Your task to perform on an android device: Go to location settings Image 0: 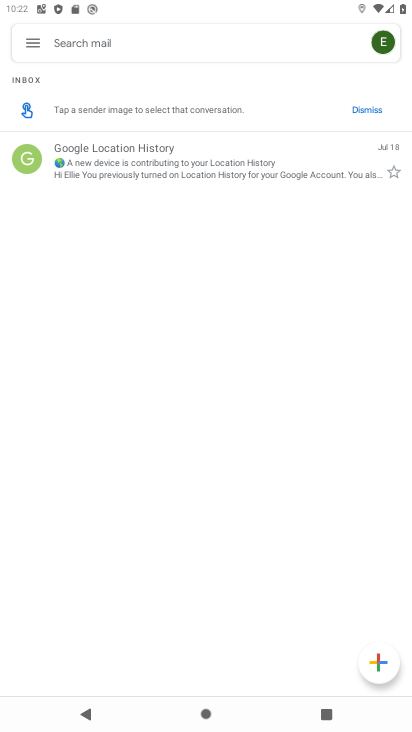
Step 0: press home button
Your task to perform on an android device: Go to location settings Image 1: 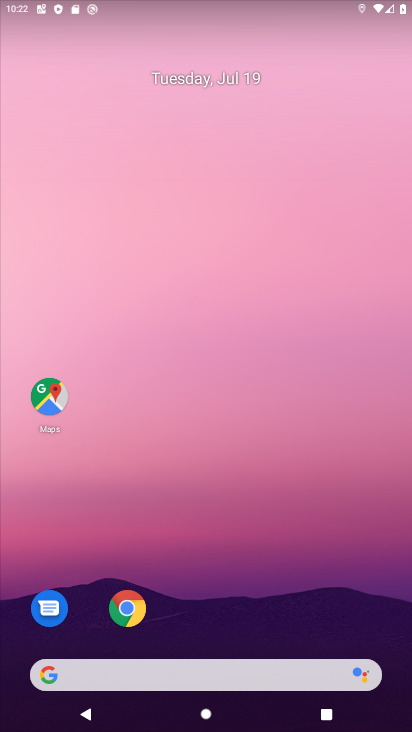
Step 1: drag from (206, 646) to (206, 23)
Your task to perform on an android device: Go to location settings Image 2: 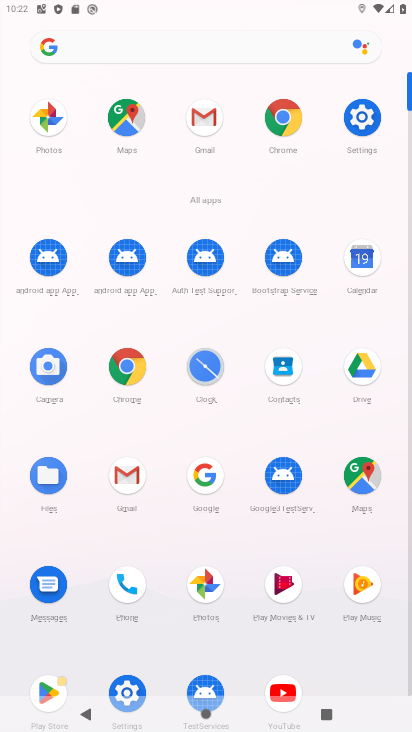
Step 2: click (367, 106)
Your task to perform on an android device: Go to location settings Image 3: 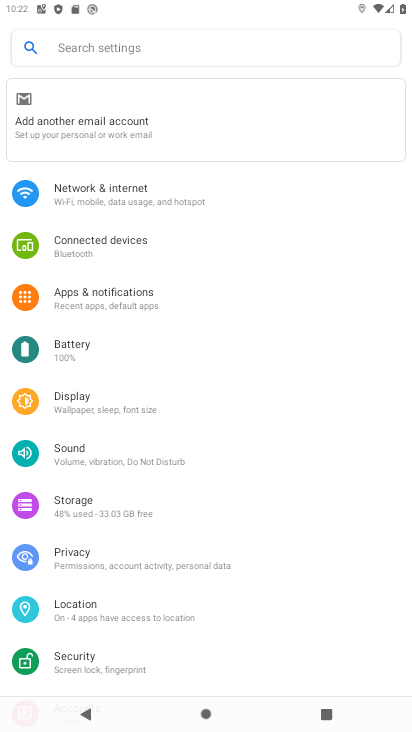
Step 3: click (93, 619)
Your task to perform on an android device: Go to location settings Image 4: 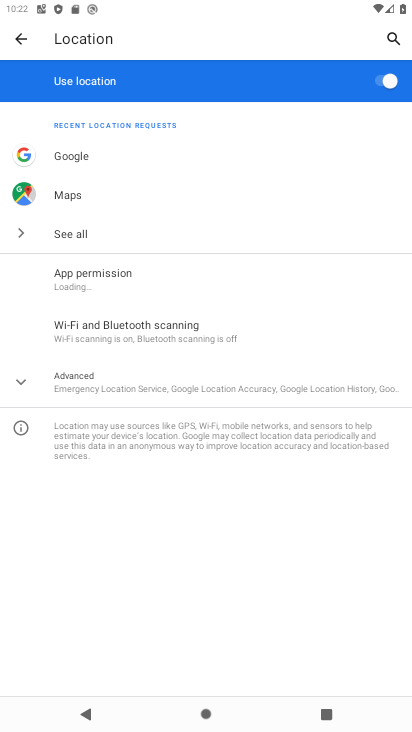
Step 4: click (29, 379)
Your task to perform on an android device: Go to location settings Image 5: 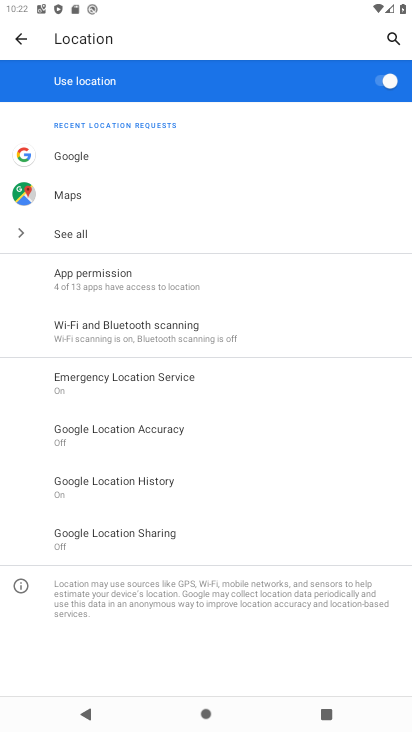
Step 5: task complete